Your task to perform on an android device: open chrome privacy settings Image 0: 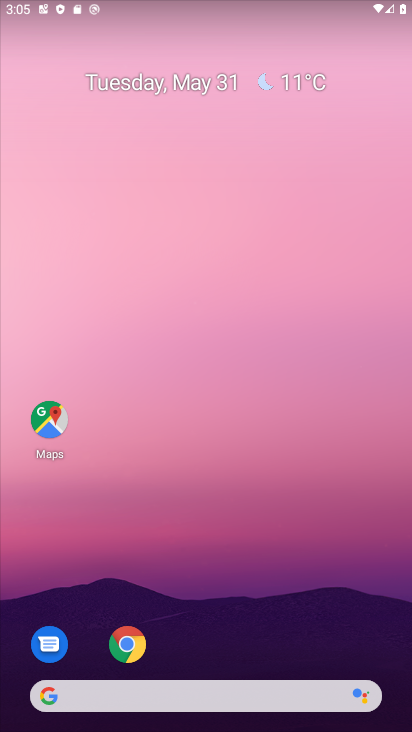
Step 0: click (127, 653)
Your task to perform on an android device: open chrome privacy settings Image 1: 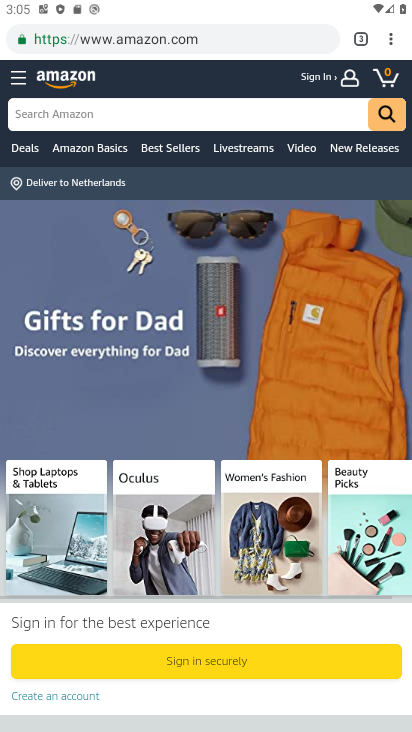
Step 1: click (389, 39)
Your task to perform on an android device: open chrome privacy settings Image 2: 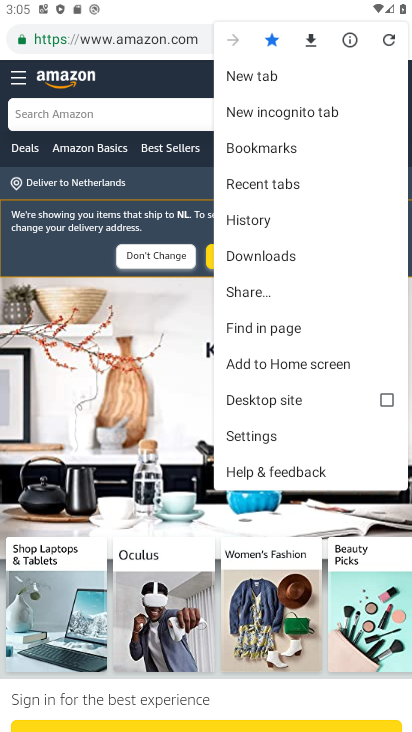
Step 2: click (263, 426)
Your task to perform on an android device: open chrome privacy settings Image 3: 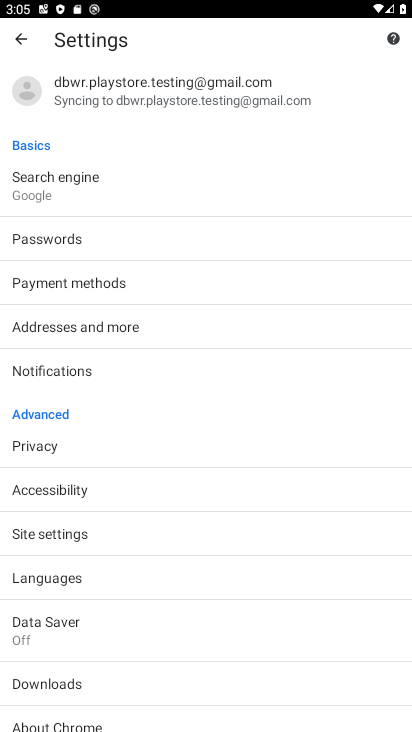
Step 3: click (70, 434)
Your task to perform on an android device: open chrome privacy settings Image 4: 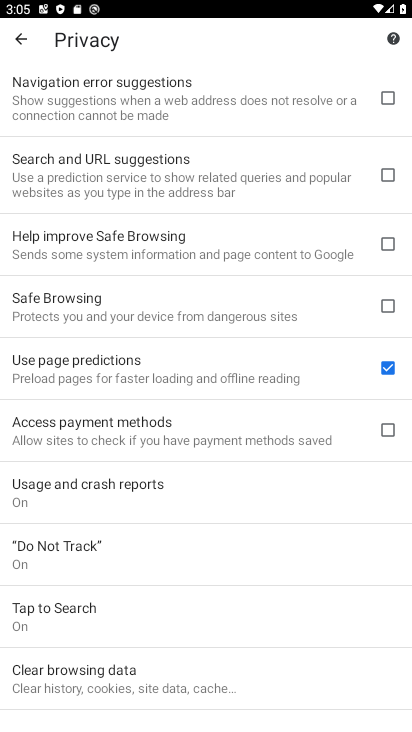
Step 4: task complete